Your task to perform on an android device: set the stopwatch Image 0: 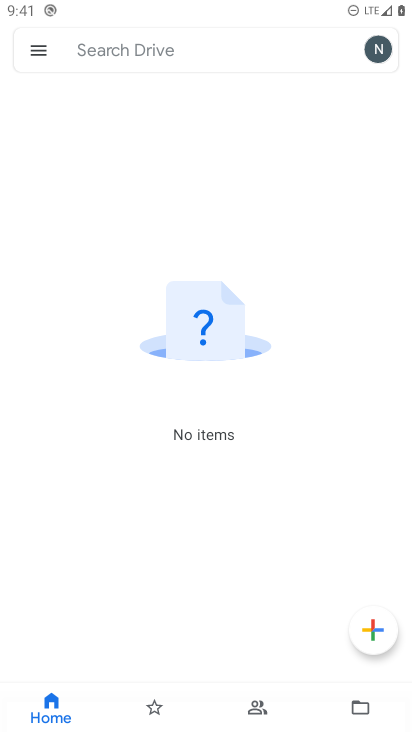
Step 0: press home button
Your task to perform on an android device: set the stopwatch Image 1: 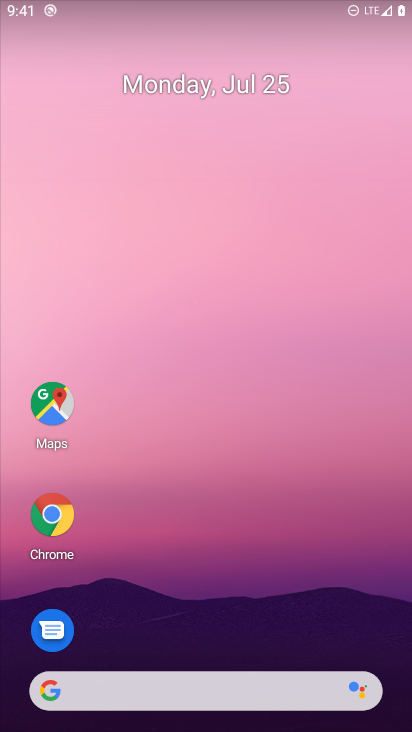
Step 1: drag from (29, 706) to (222, 243)
Your task to perform on an android device: set the stopwatch Image 2: 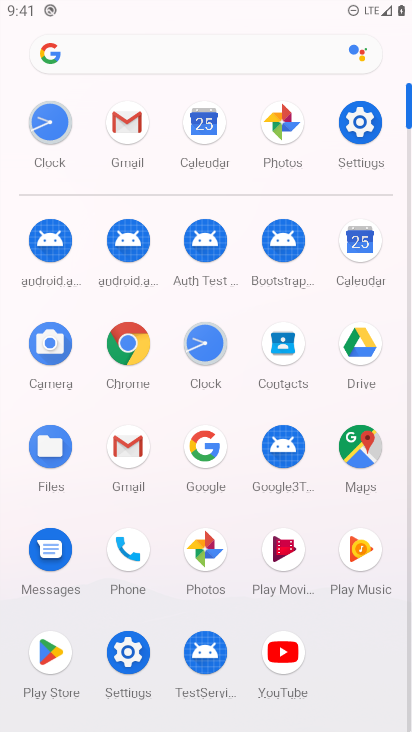
Step 2: click (204, 343)
Your task to perform on an android device: set the stopwatch Image 3: 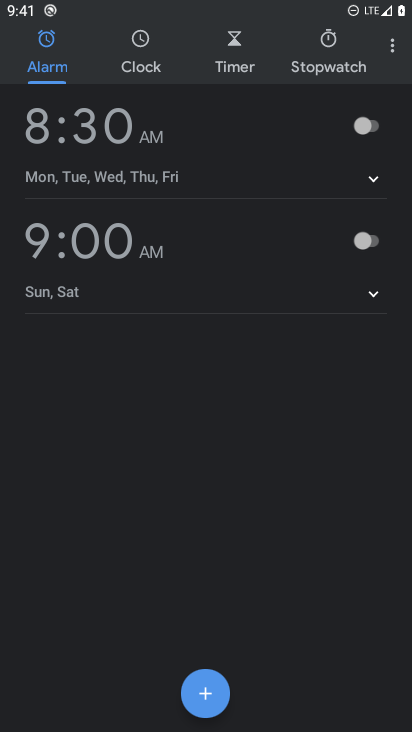
Step 3: click (329, 52)
Your task to perform on an android device: set the stopwatch Image 4: 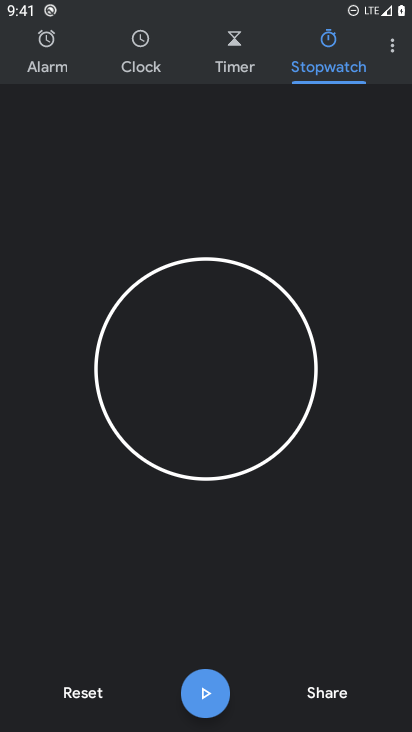
Step 4: click (203, 360)
Your task to perform on an android device: set the stopwatch Image 5: 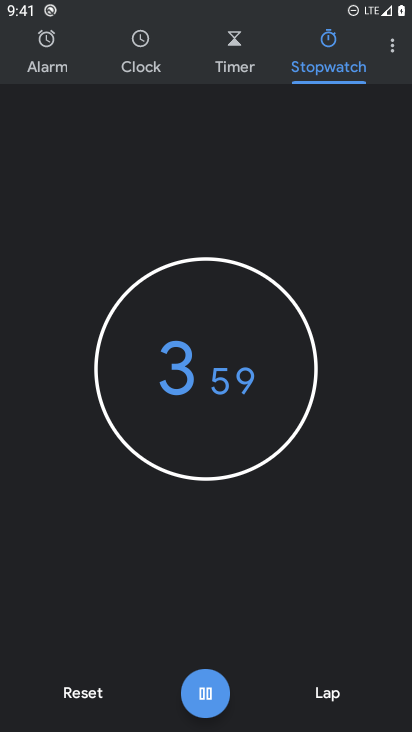
Step 5: click (216, 397)
Your task to perform on an android device: set the stopwatch Image 6: 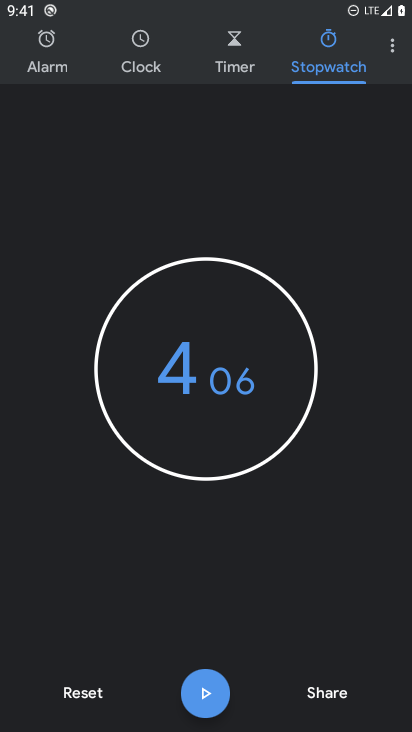
Step 6: task complete